Your task to perform on an android device: change your default location settings in chrome Image 0: 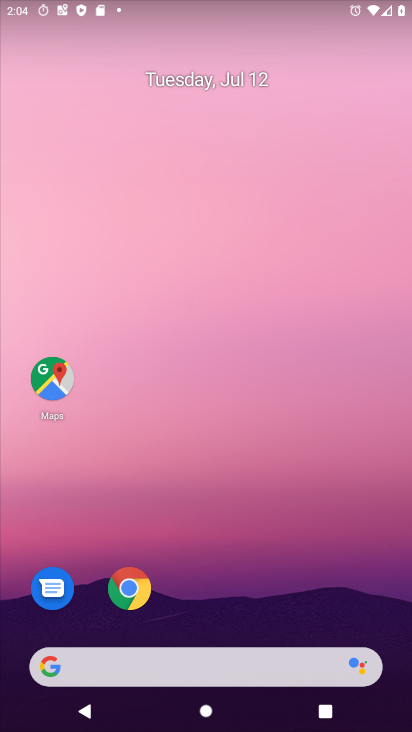
Step 0: click (411, 295)
Your task to perform on an android device: change your default location settings in chrome Image 1: 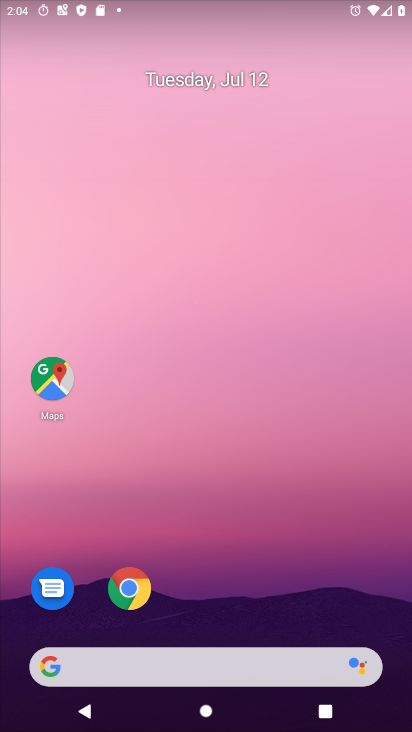
Step 1: drag from (182, 613) to (244, 176)
Your task to perform on an android device: change your default location settings in chrome Image 2: 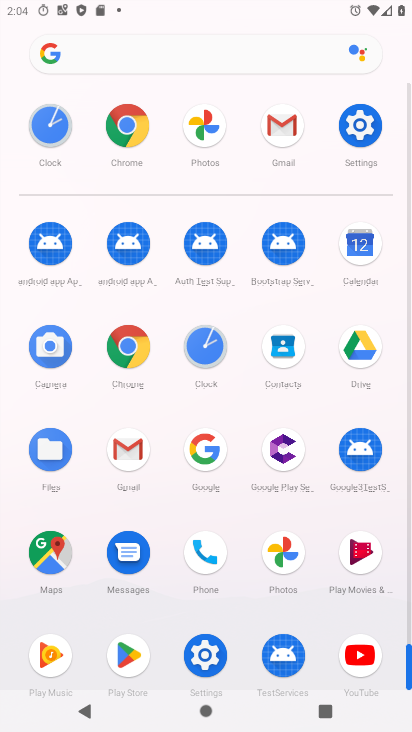
Step 2: click (132, 351)
Your task to perform on an android device: change your default location settings in chrome Image 3: 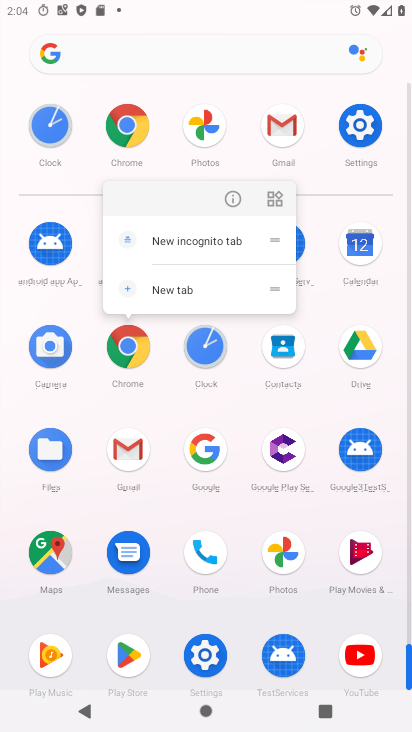
Step 3: click (230, 198)
Your task to perform on an android device: change your default location settings in chrome Image 4: 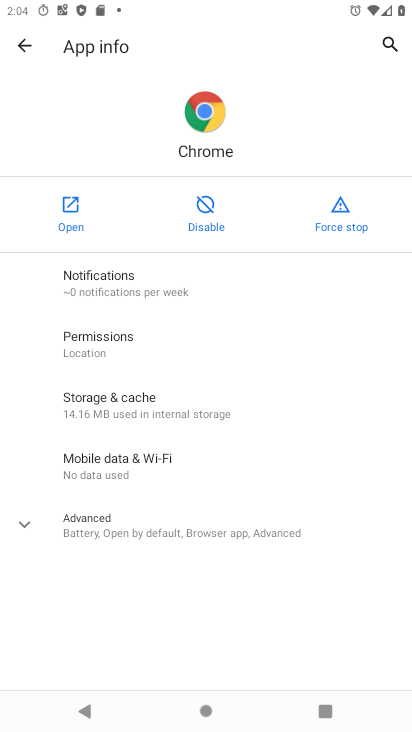
Step 4: click (75, 204)
Your task to perform on an android device: change your default location settings in chrome Image 5: 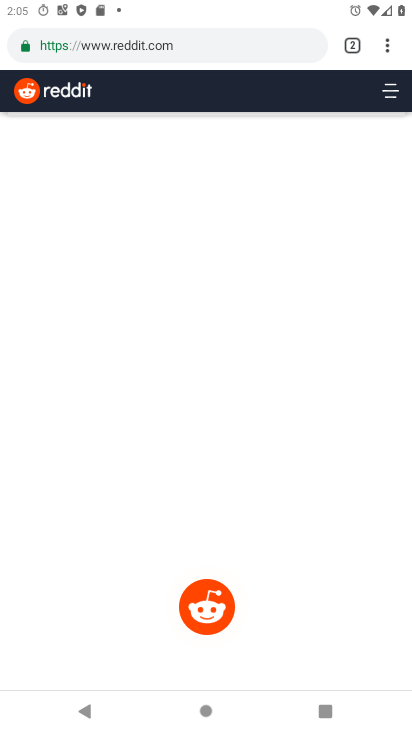
Step 5: drag from (182, 473) to (227, 294)
Your task to perform on an android device: change your default location settings in chrome Image 6: 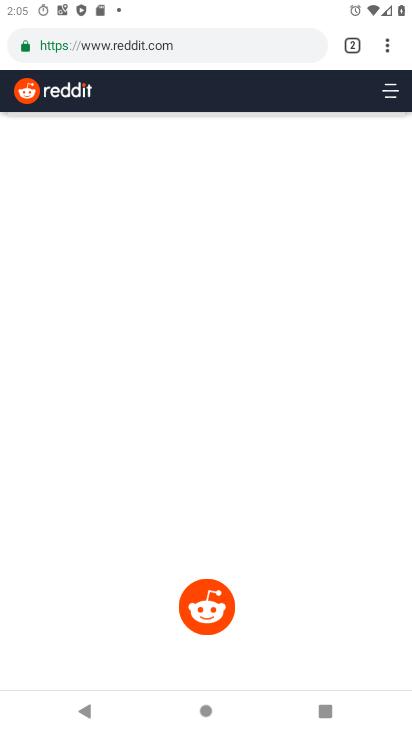
Step 6: click (379, 40)
Your task to perform on an android device: change your default location settings in chrome Image 7: 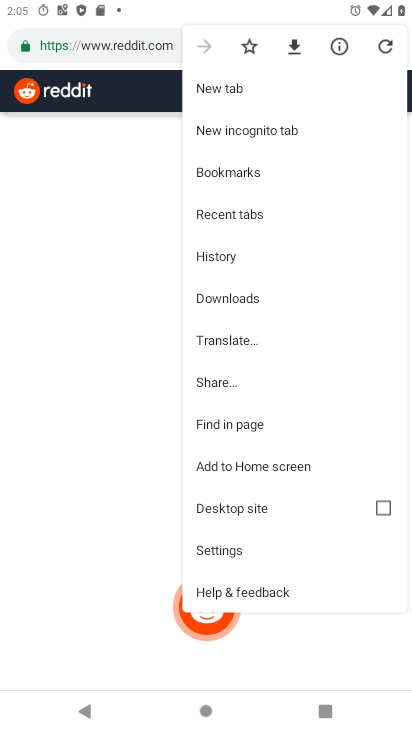
Step 7: drag from (263, 454) to (322, 59)
Your task to perform on an android device: change your default location settings in chrome Image 8: 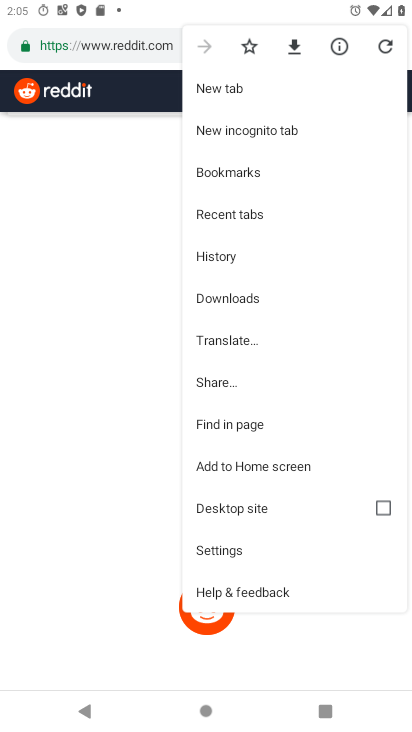
Step 8: click (235, 545)
Your task to perform on an android device: change your default location settings in chrome Image 9: 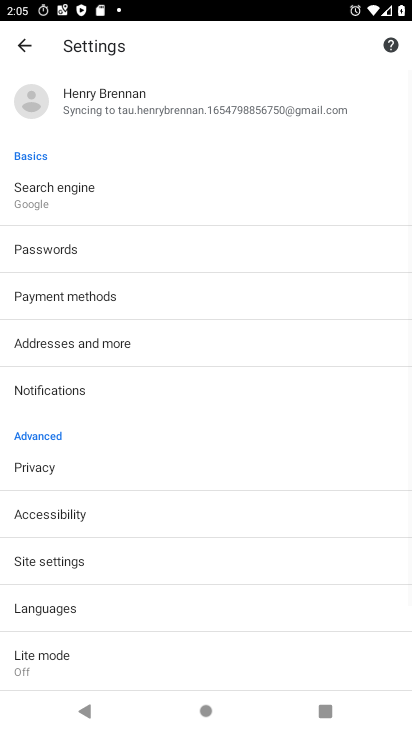
Step 9: drag from (156, 576) to (240, 132)
Your task to perform on an android device: change your default location settings in chrome Image 10: 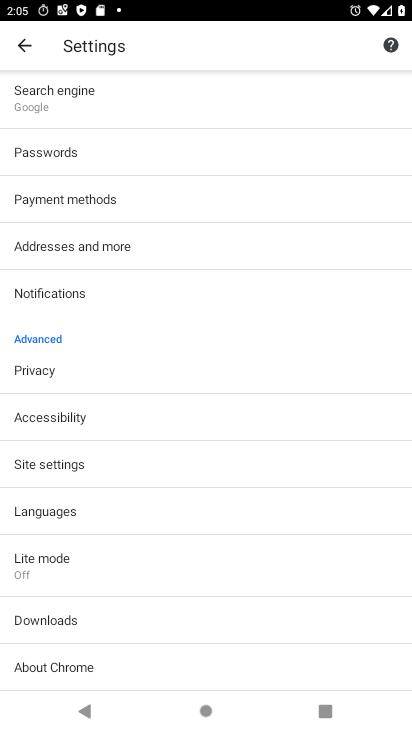
Step 10: click (91, 421)
Your task to perform on an android device: change your default location settings in chrome Image 11: 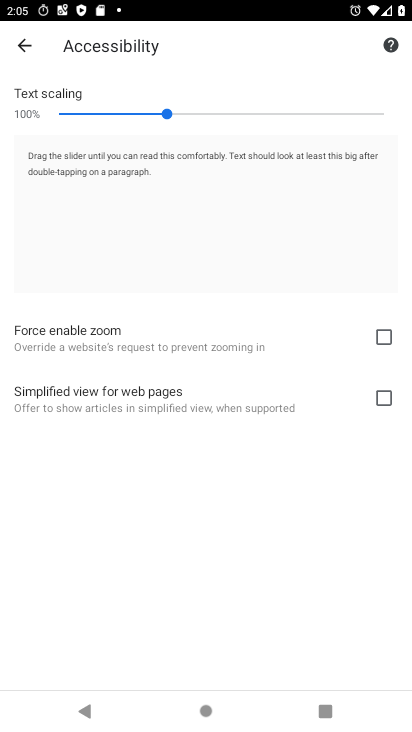
Step 11: click (29, 45)
Your task to perform on an android device: change your default location settings in chrome Image 12: 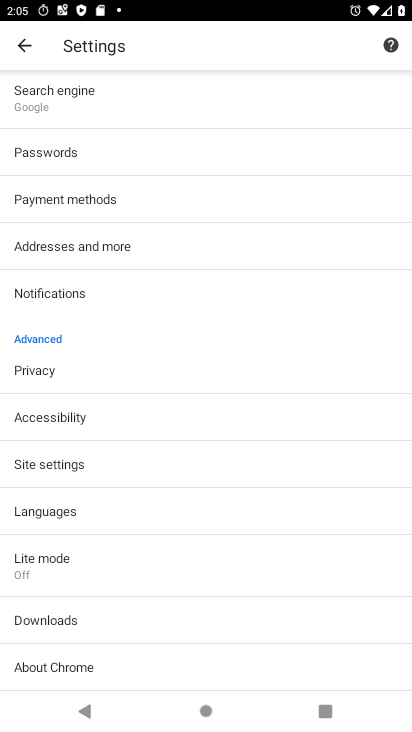
Step 12: click (89, 450)
Your task to perform on an android device: change your default location settings in chrome Image 13: 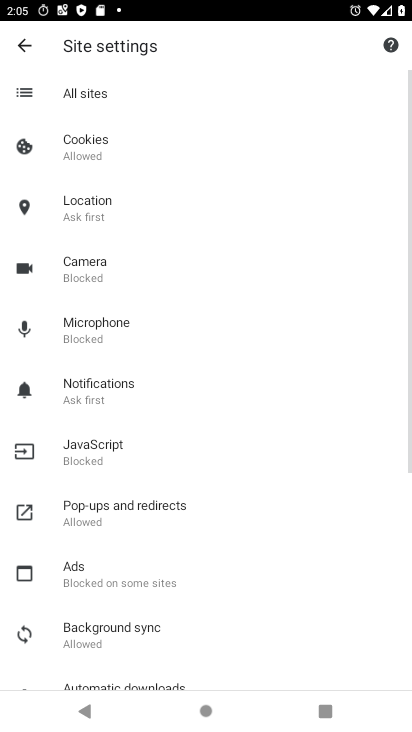
Step 13: drag from (132, 512) to (259, 89)
Your task to perform on an android device: change your default location settings in chrome Image 14: 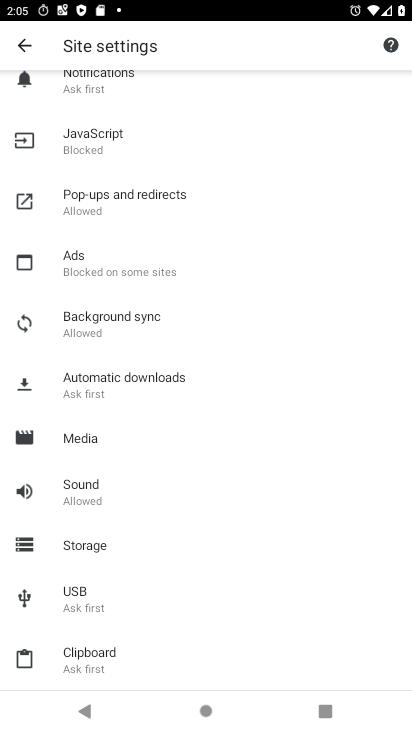
Step 14: drag from (110, 483) to (156, 198)
Your task to perform on an android device: change your default location settings in chrome Image 15: 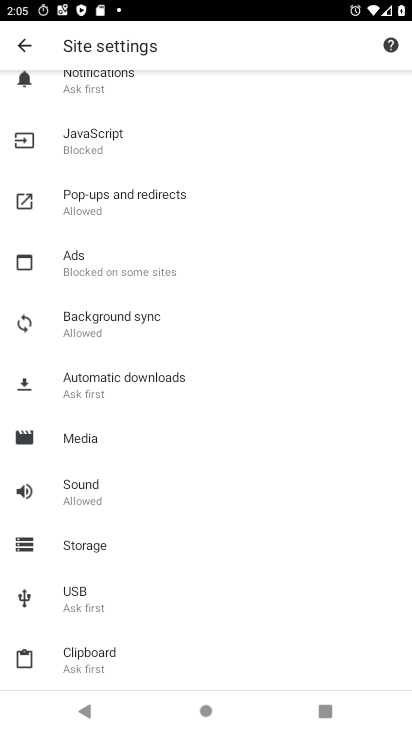
Step 15: drag from (145, 543) to (178, 277)
Your task to perform on an android device: change your default location settings in chrome Image 16: 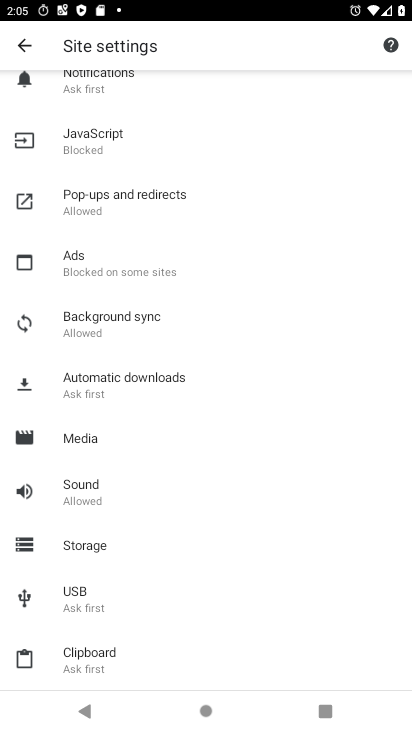
Step 16: drag from (106, 453) to (170, 227)
Your task to perform on an android device: change your default location settings in chrome Image 17: 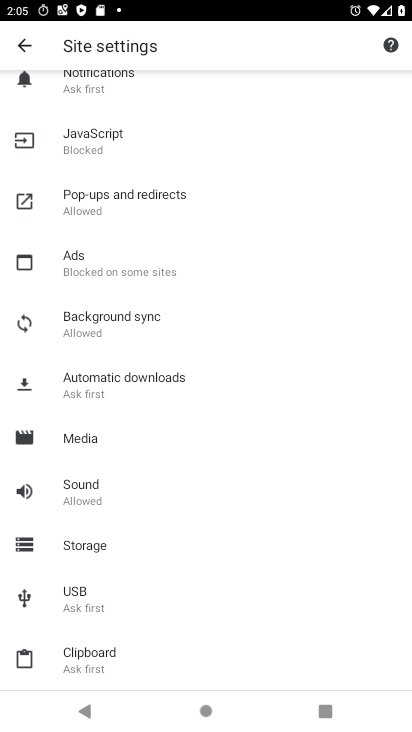
Step 17: drag from (151, 148) to (191, 607)
Your task to perform on an android device: change your default location settings in chrome Image 18: 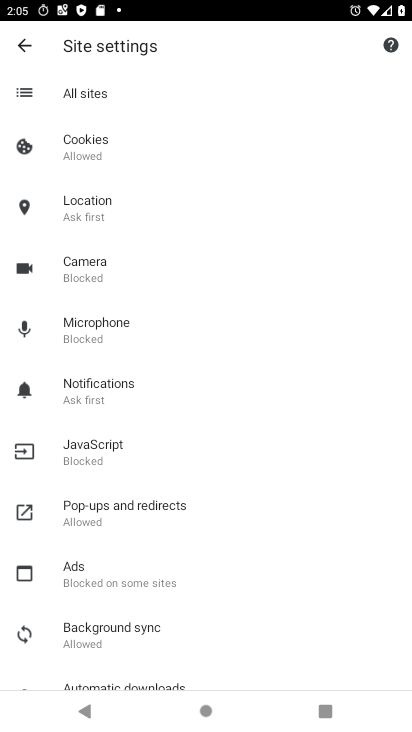
Step 18: click (114, 192)
Your task to perform on an android device: change your default location settings in chrome Image 19: 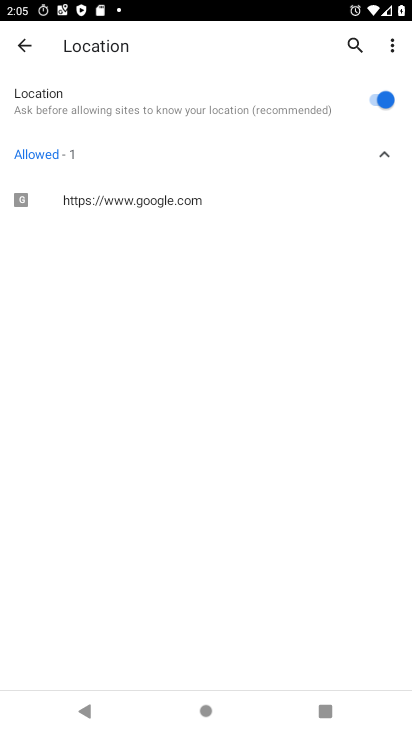
Step 19: click (382, 102)
Your task to perform on an android device: change your default location settings in chrome Image 20: 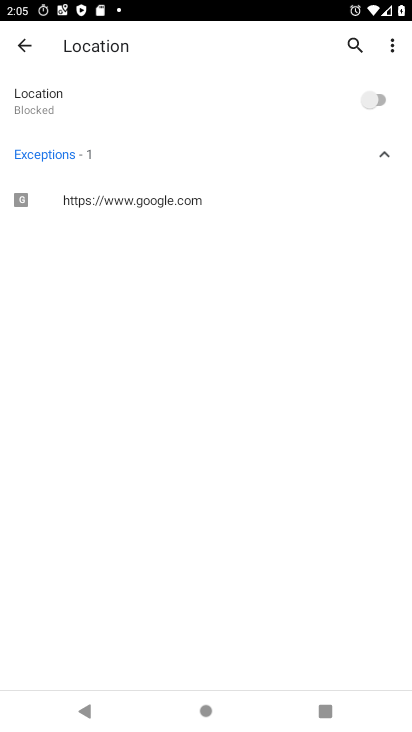
Step 20: task complete